Your task to perform on an android device: change notification settings in the gmail app Image 0: 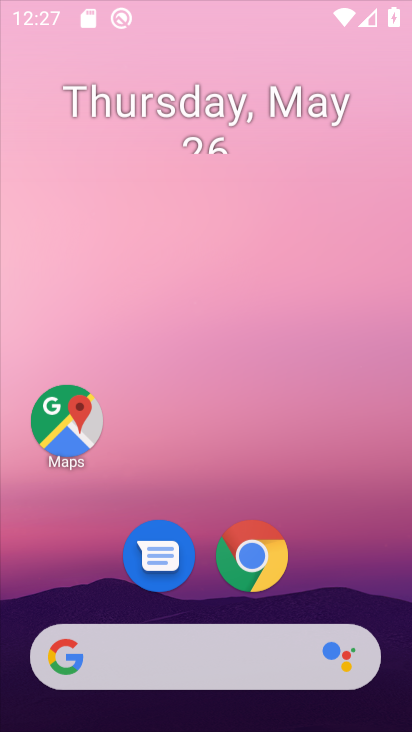
Step 0: press home button
Your task to perform on an android device: change notification settings in the gmail app Image 1: 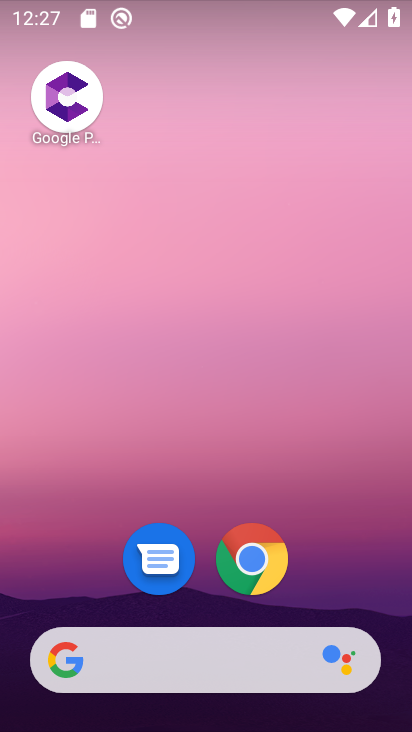
Step 1: drag from (346, 610) to (317, 135)
Your task to perform on an android device: change notification settings in the gmail app Image 2: 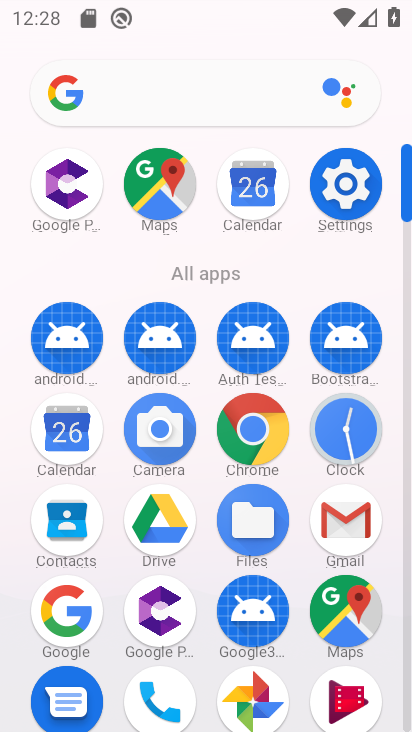
Step 2: click (369, 520)
Your task to perform on an android device: change notification settings in the gmail app Image 3: 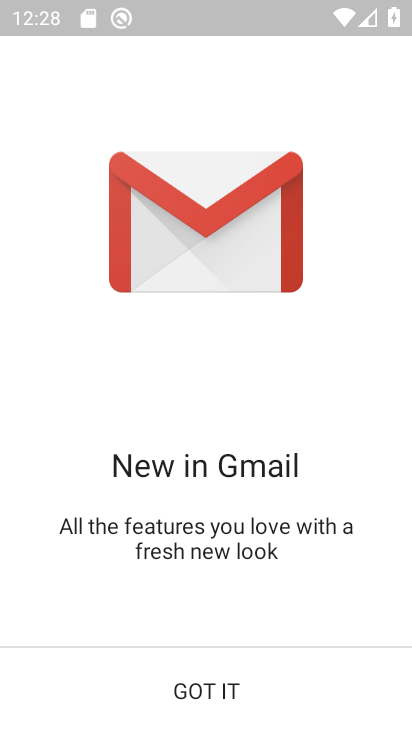
Step 3: click (218, 682)
Your task to perform on an android device: change notification settings in the gmail app Image 4: 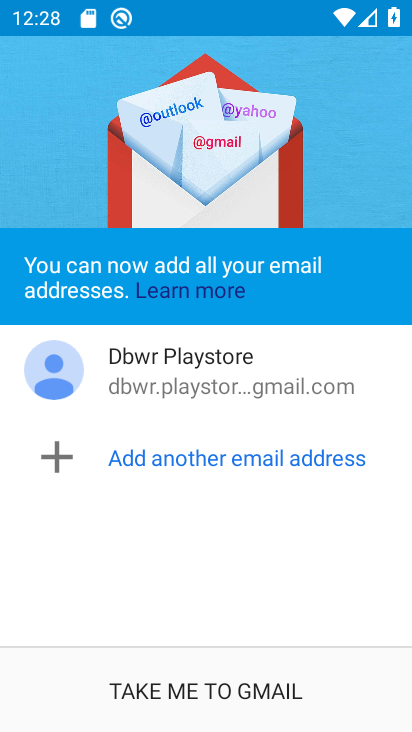
Step 4: click (218, 680)
Your task to perform on an android device: change notification settings in the gmail app Image 5: 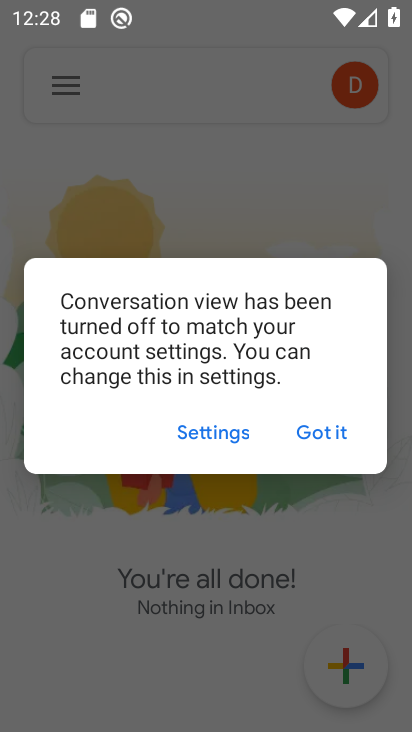
Step 5: click (308, 431)
Your task to perform on an android device: change notification settings in the gmail app Image 6: 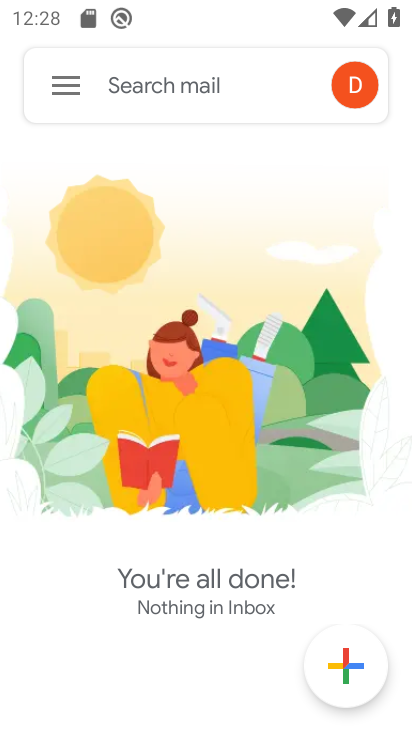
Step 6: click (52, 93)
Your task to perform on an android device: change notification settings in the gmail app Image 7: 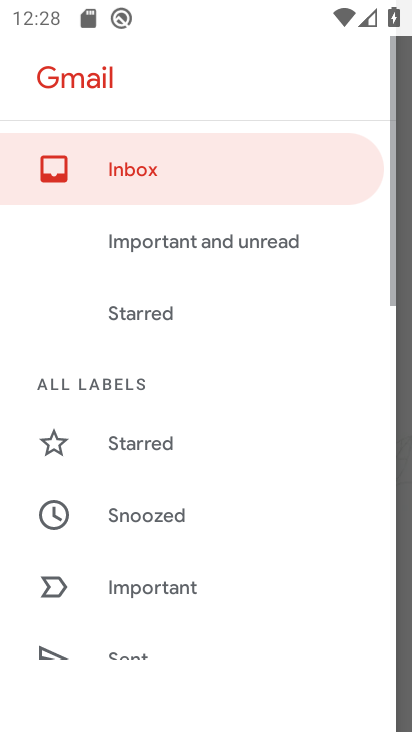
Step 7: drag from (219, 628) to (241, 172)
Your task to perform on an android device: change notification settings in the gmail app Image 8: 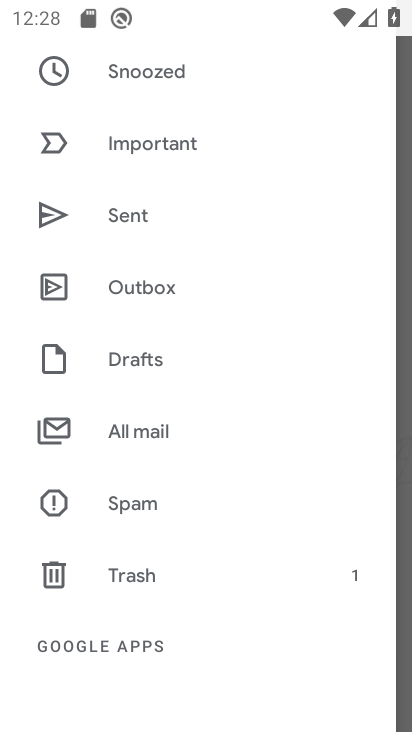
Step 8: drag from (214, 535) to (231, 98)
Your task to perform on an android device: change notification settings in the gmail app Image 9: 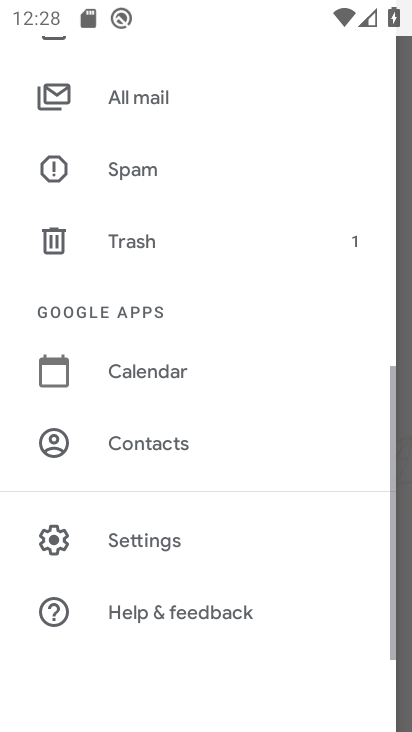
Step 9: click (151, 542)
Your task to perform on an android device: change notification settings in the gmail app Image 10: 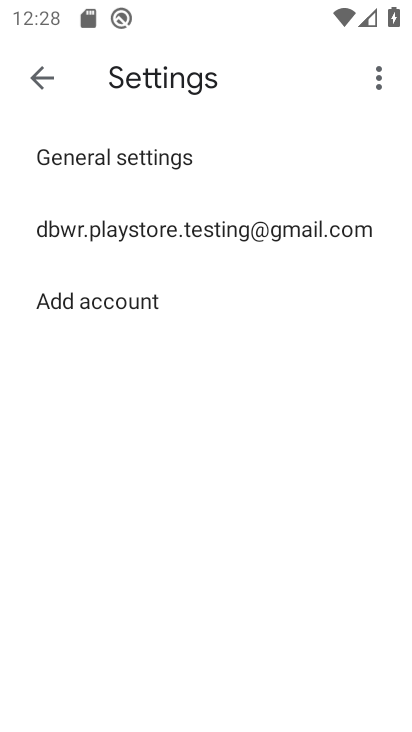
Step 10: click (153, 237)
Your task to perform on an android device: change notification settings in the gmail app Image 11: 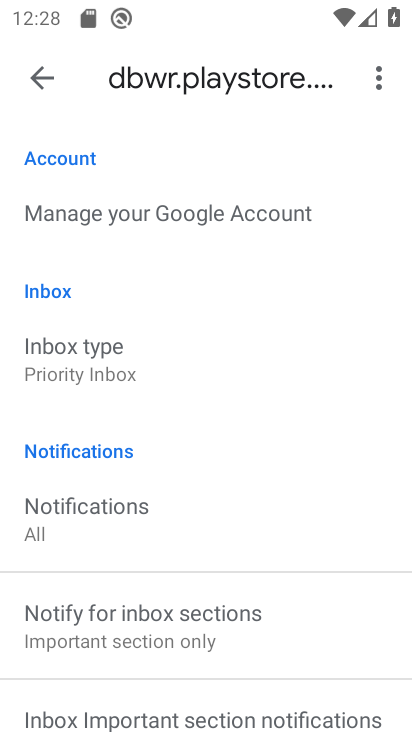
Step 11: click (106, 512)
Your task to perform on an android device: change notification settings in the gmail app Image 12: 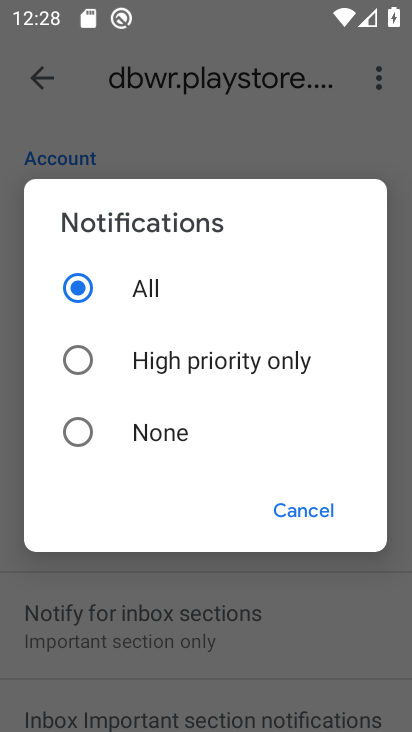
Step 12: click (76, 361)
Your task to perform on an android device: change notification settings in the gmail app Image 13: 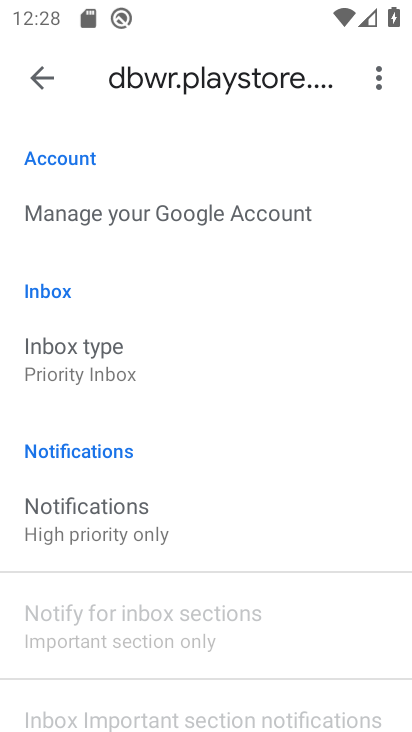
Step 13: task complete